Your task to perform on an android device: Open Google Chrome and click the shortcut for Amazon.com Image 0: 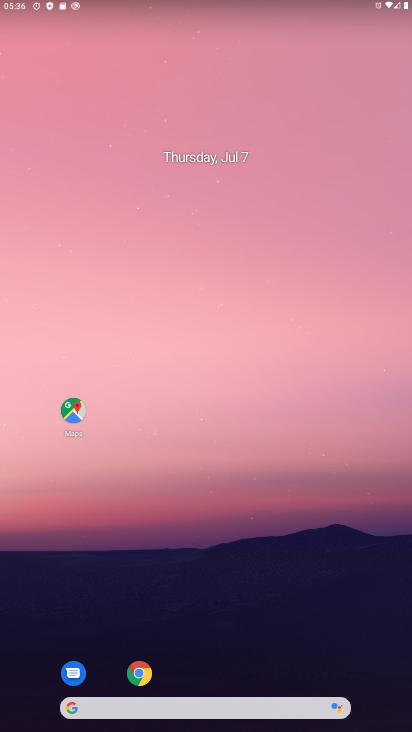
Step 0: drag from (281, 710) to (303, 69)
Your task to perform on an android device: Open Google Chrome and click the shortcut for Amazon.com Image 1: 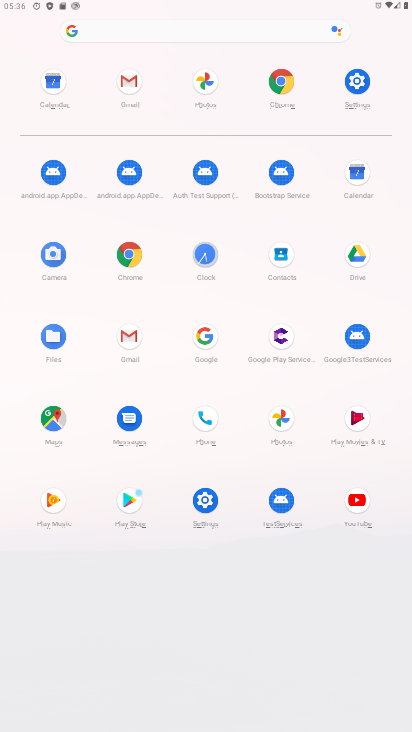
Step 1: click (127, 258)
Your task to perform on an android device: Open Google Chrome and click the shortcut for Amazon.com Image 2: 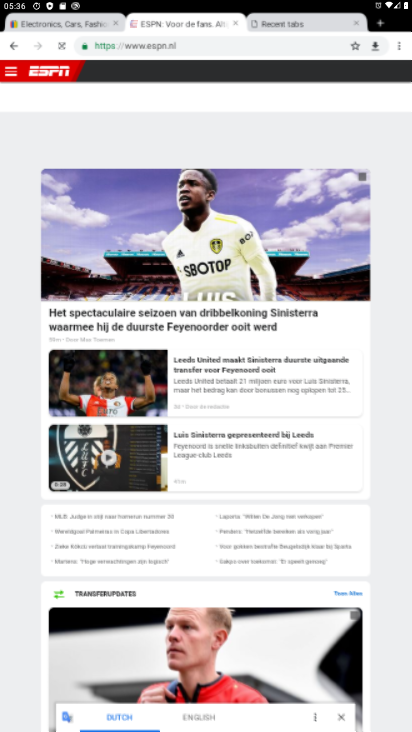
Step 2: click (281, 44)
Your task to perform on an android device: Open Google Chrome and click the shortcut for Amazon.com Image 3: 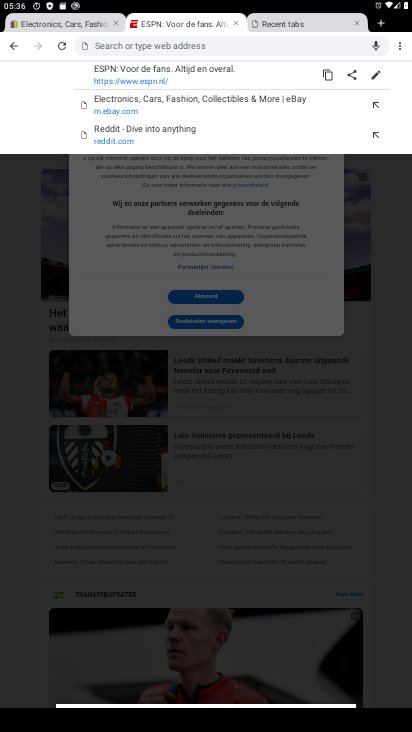
Step 3: type "amazon.com"
Your task to perform on an android device: Open Google Chrome and click the shortcut for Amazon.com Image 4: 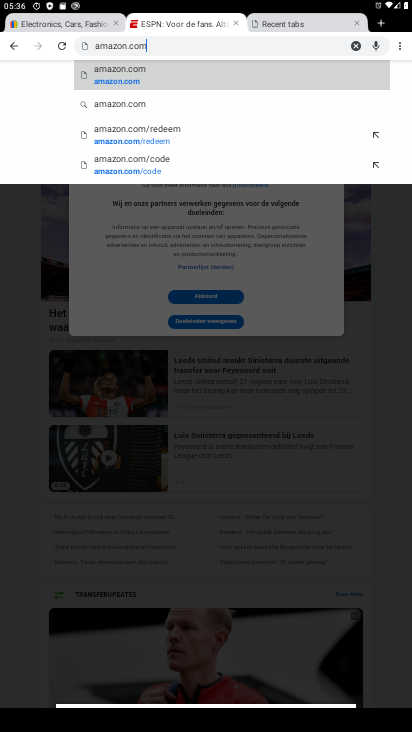
Step 4: click (187, 78)
Your task to perform on an android device: Open Google Chrome and click the shortcut for Amazon.com Image 5: 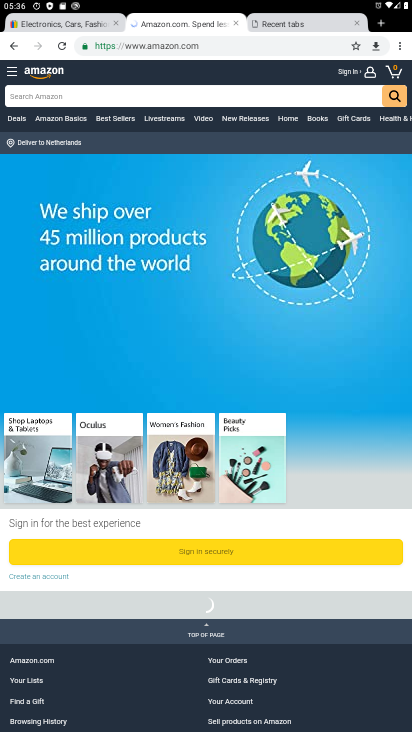
Step 5: task complete